Your task to perform on an android device: toggle pop-ups in chrome Image 0: 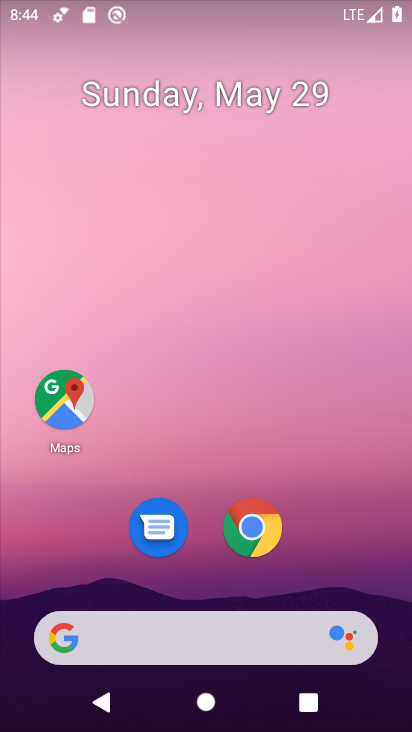
Step 0: press home button
Your task to perform on an android device: toggle pop-ups in chrome Image 1: 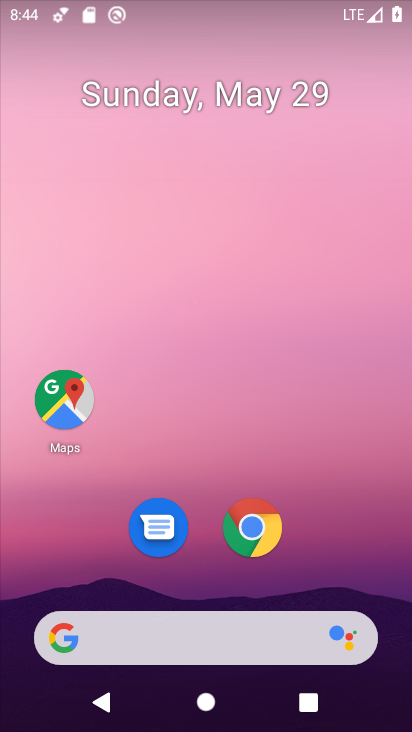
Step 1: click (250, 522)
Your task to perform on an android device: toggle pop-ups in chrome Image 2: 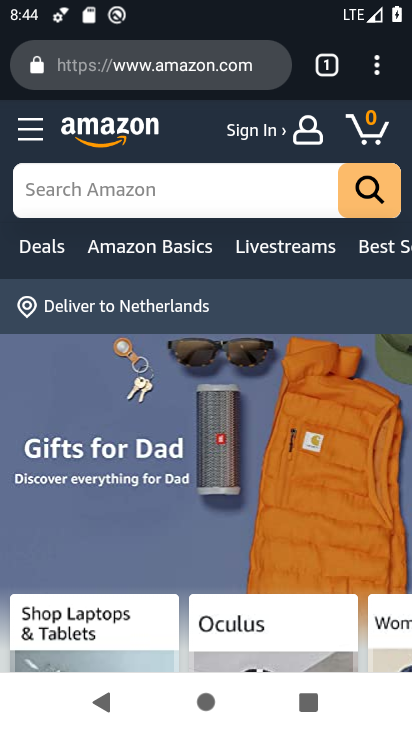
Step 2: click (374, 60)
Your task to perform on an android device: toggle pop-ups in chrome Image 3: 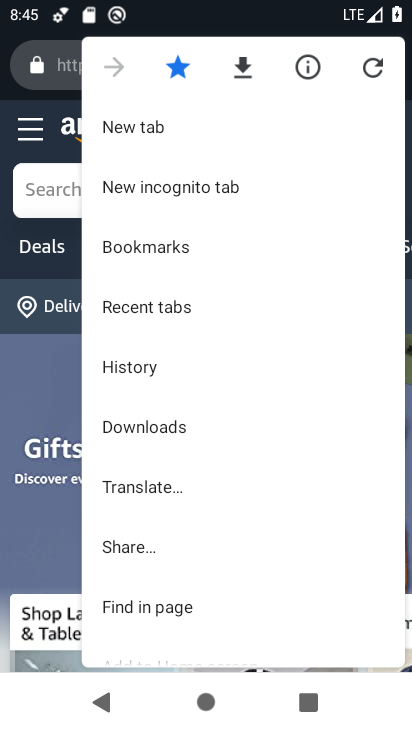
Step 3: drag from (220, 588) to (209, 92)
Your task to perform on an android device: toggle pop-ups in chrome Image 4: 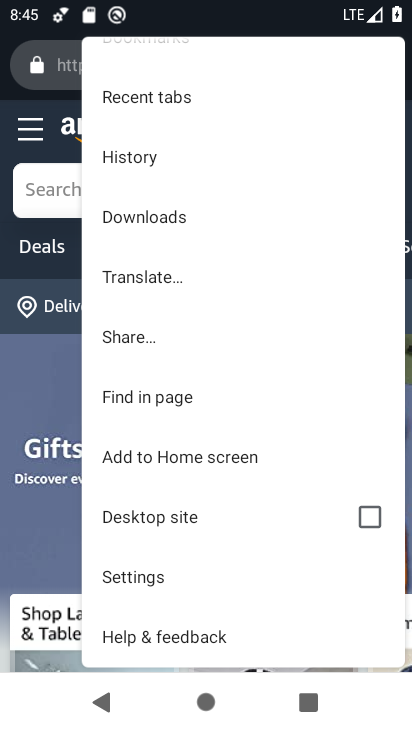
Step 4: click (184, 572)
Your task to perform on an android device: toggle pop-ups in chrome Image 5: 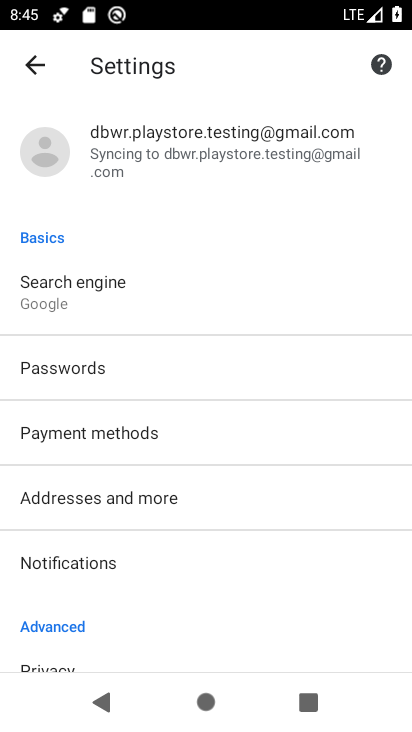
Step 5: drag from (178, 622) to (175, 176)
Your task to perform on an android device: toggle pop-ups in chrome Image 6: 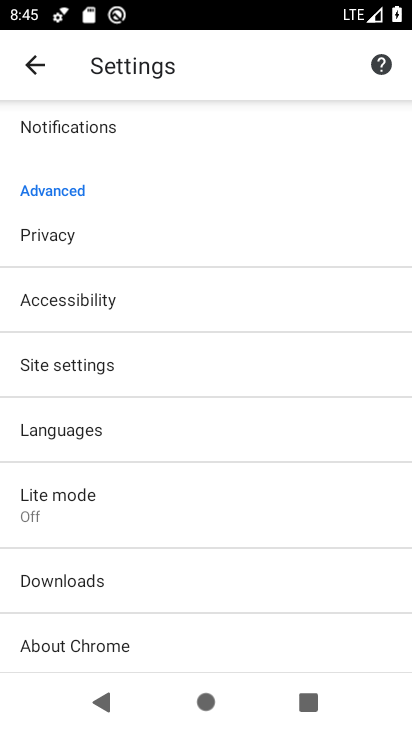
Step 6: click (150, 365)
Your task to perform on an android device: toggle pop-ups in chrome Image 7: 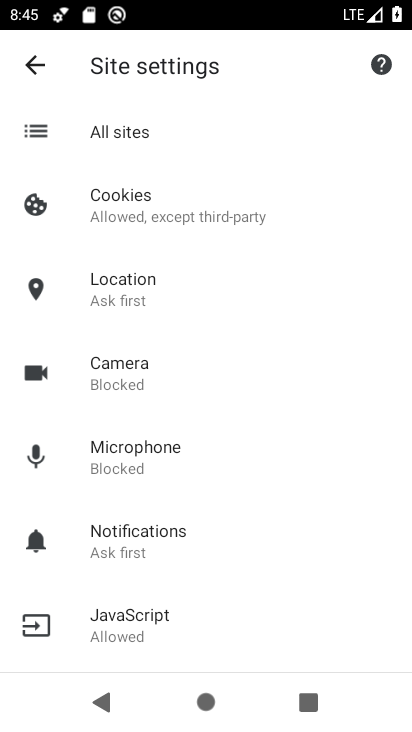
Step 7: drag from (215, 615) to (210, 111)
Your task to perform on an android device: toggle pop-ups in chrome Image 8: 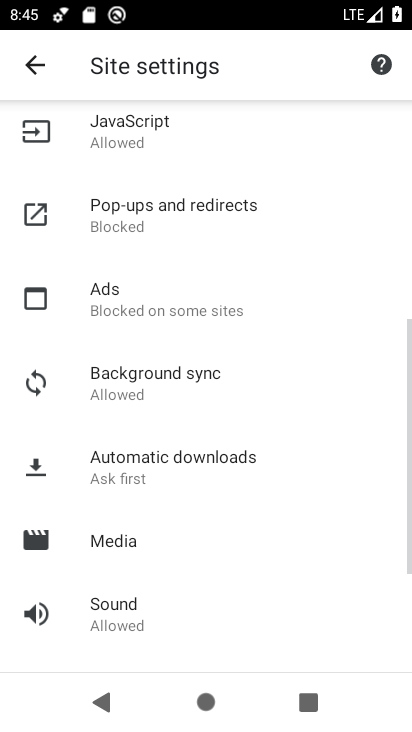
Step 8: click (158, 211)
Your task to perform on an android device: toggle pop-ups in chrome Image 9: 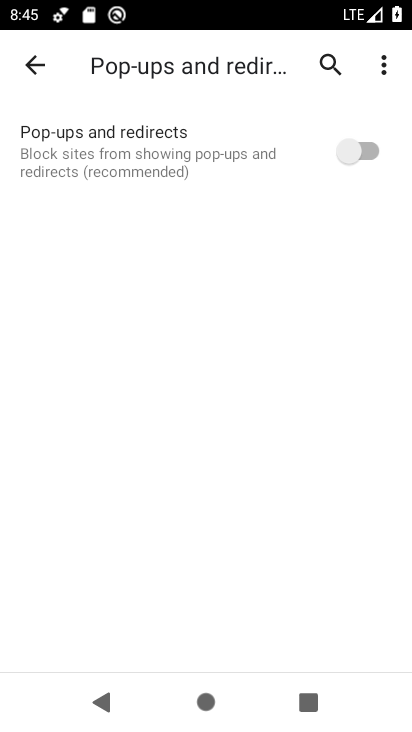
Step 9: click (366, 148)
Your task to perform on an android device: toggle pop-ups in chrome Image 10: 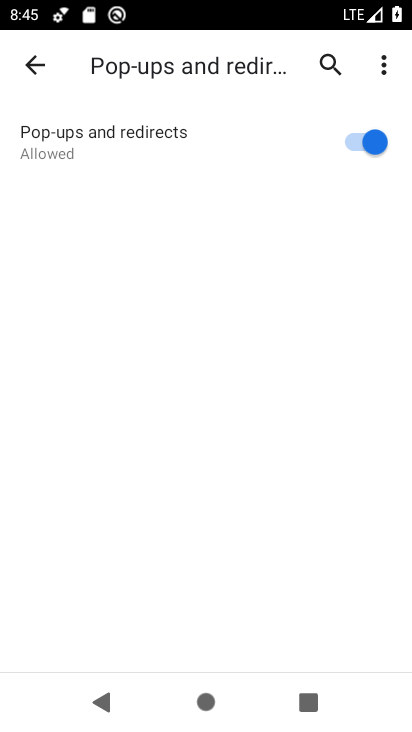
Step 10: task complete